Your task to perform on an android device: turn on data saver in the chrome app Image 0: 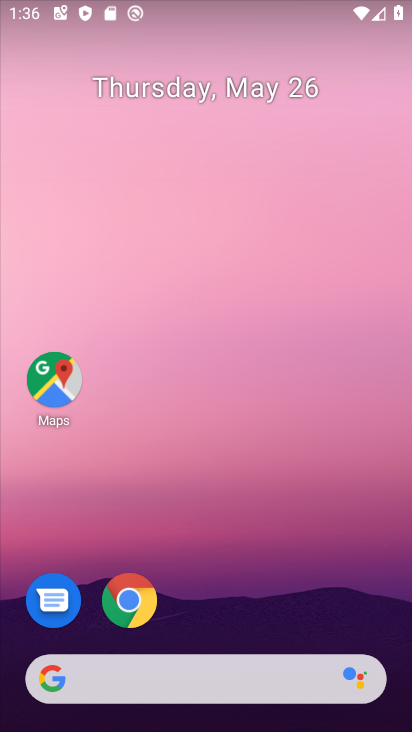
Step 0: drag from (187, 560) to (178, 108)
Your task to perform on an android device: turn on data saver in the chrome app Image 1: 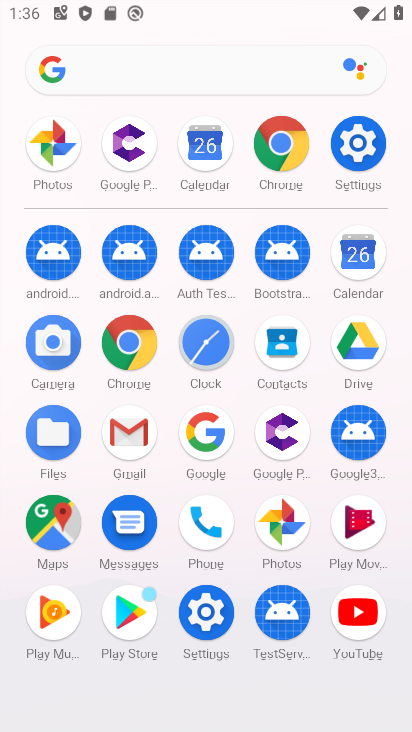
Step 1: click (297, 133)
Your task to perform on an android device: turn on data saver in the chrome app Image 2: 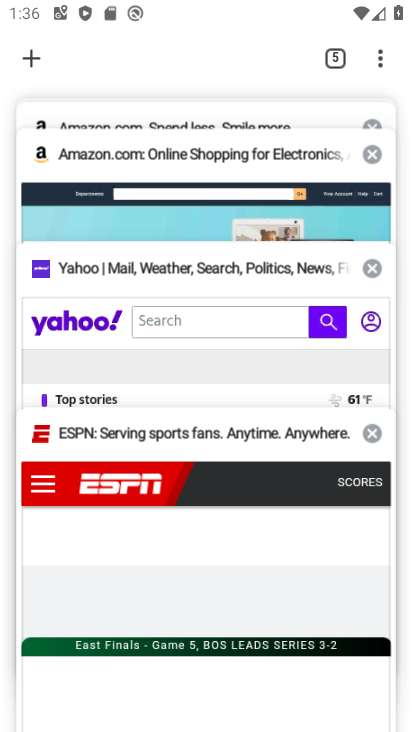
Step 2: click (373, 63)
Your task to perform on an android device: turn on data saver in the chrome app Image 3: 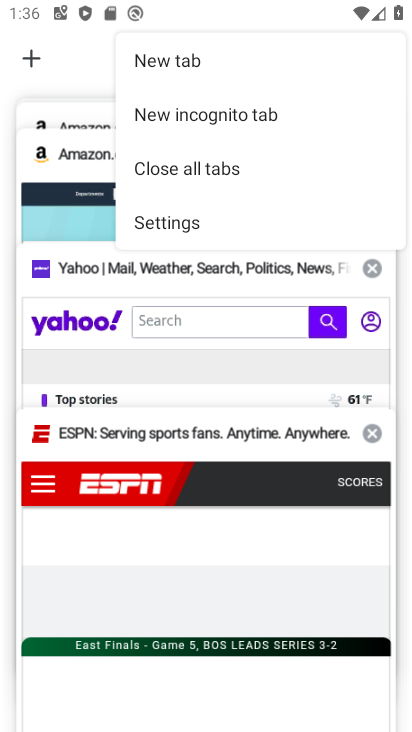
Step 3: click (183, 220)
Your task to perform on an android device: turn on data saver in the chrome app Image 4: 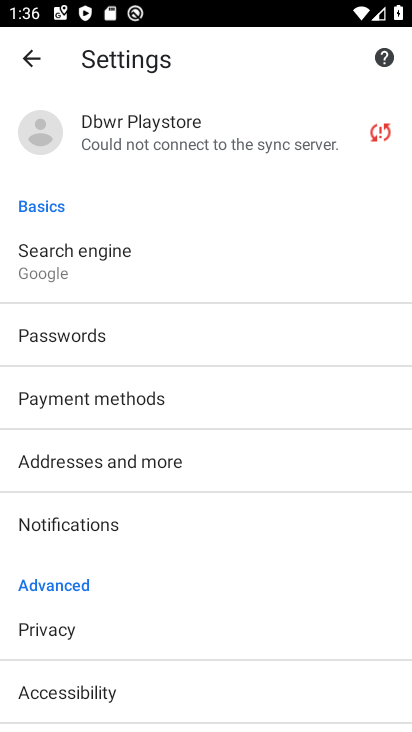
Step 4: drag from (133, 507) to (228, 130)
Your task to perform on an android device: turn on data saver in the chrome app Image 5: 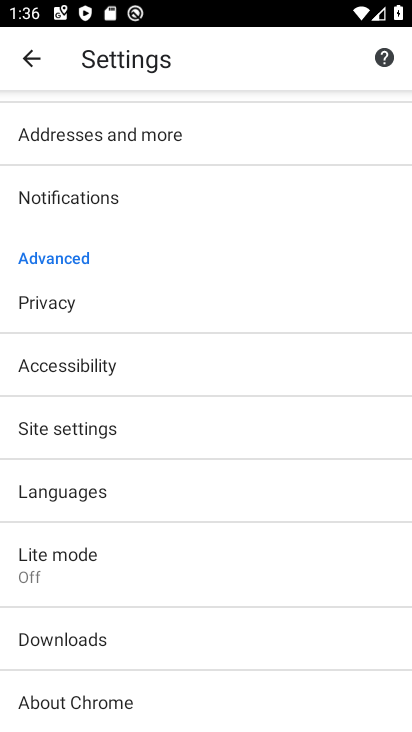
Step 5: drag from (108, 673) to (159, 254)
Your task to perform on an android device: turn on data saver in the chrome app Image 6: 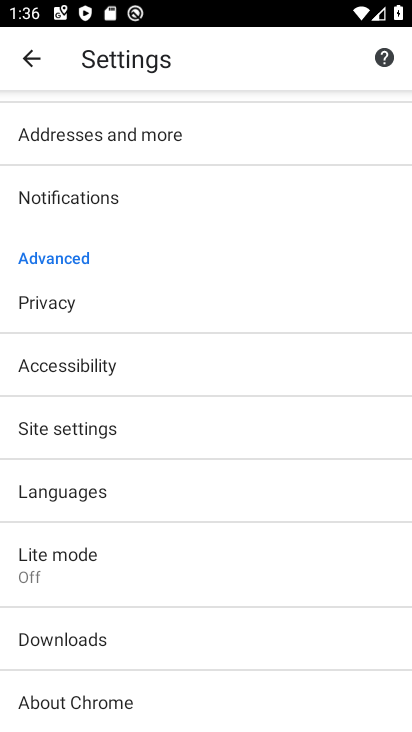
Step 6: click (91, 414)
Your task to perform on an android device: turn on data saver in the chrome app Image 7: 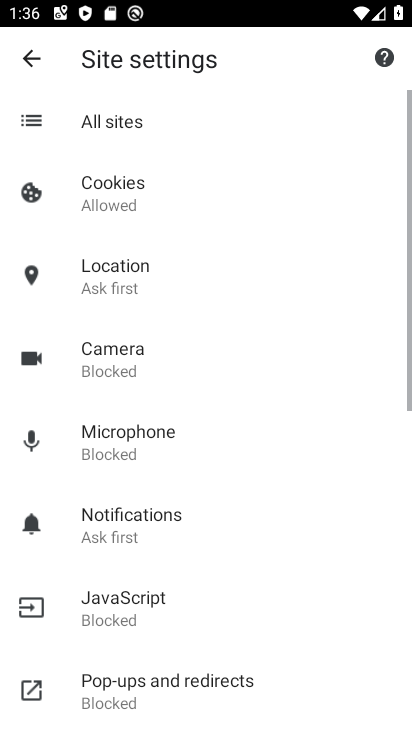
Step 7: drag from (137, 594) to (136, 167)
Your task to perform on an android device: turn on data saver in the chrome app Image 8: 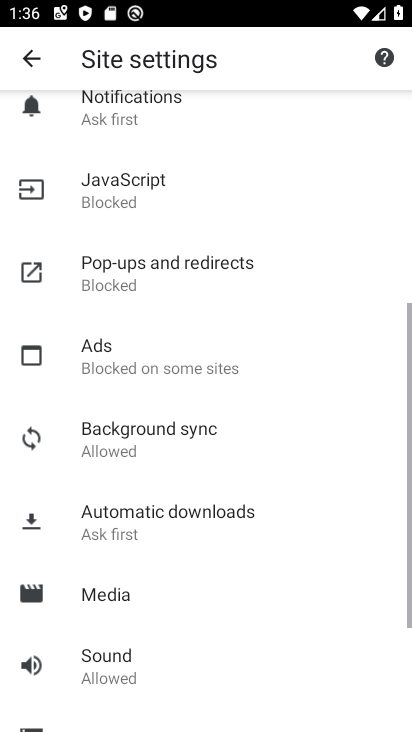
Step 8: drag from (115, 599) to (141, 217)
Your task to perform on an android device: turn on data saver in the chrome app Image 9: 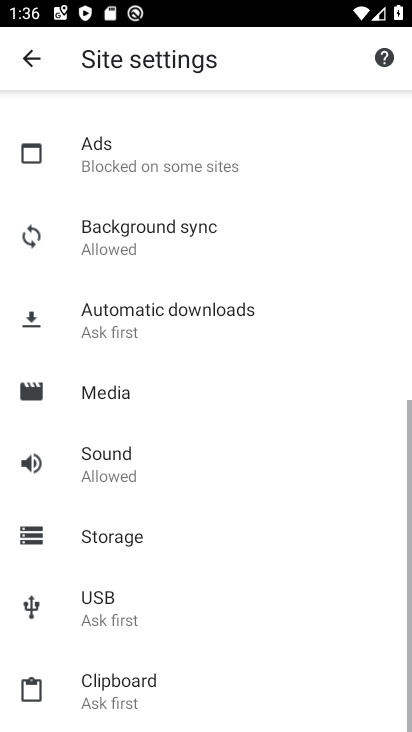
Step 9: drag from (154, 572) to (197, 223)
Your task to perform on an android device: turn on data saver in the chrome app Image 10: 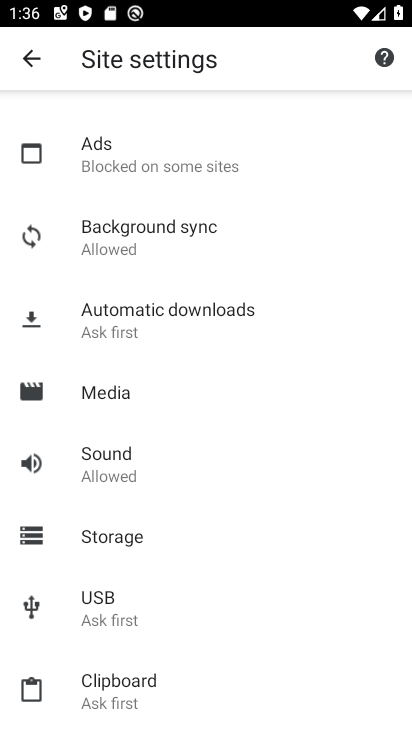
Step 10: press back button
Your task to perform on an android device: turn on data saver in the chrome app Image 11: 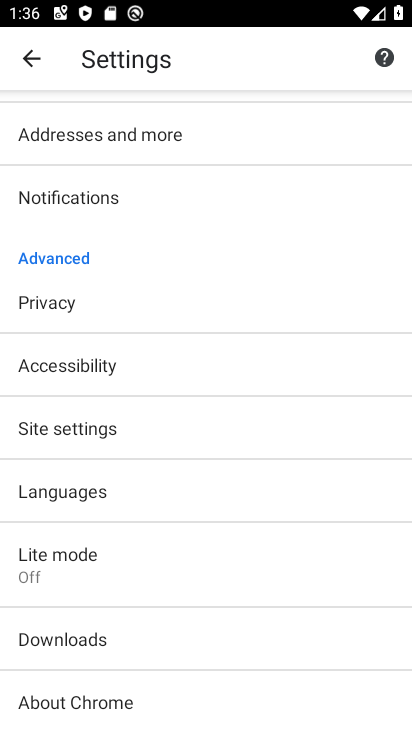
Step 11: click (238, 293)
Your task to perform on an android device: turn on data saver in the chrome app Image 12: 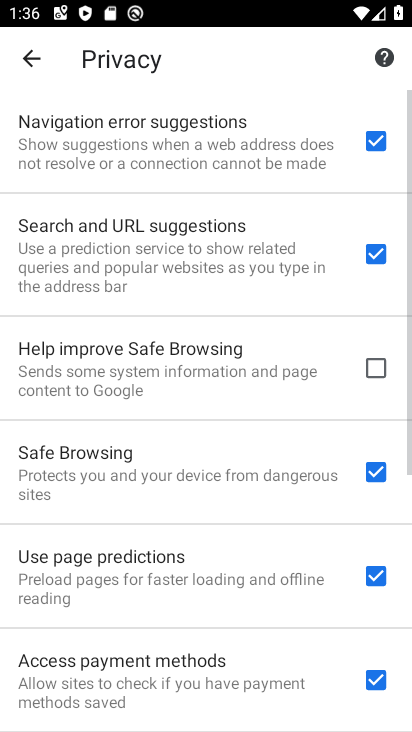
Step 12: task complete